Your task to perform on an android device: Open the Google play store app Image 0: 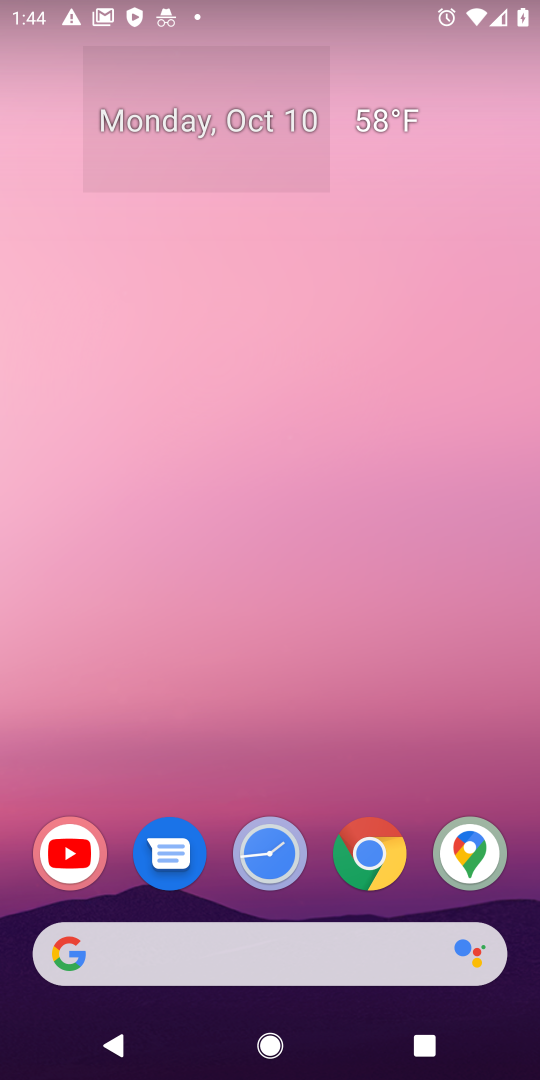
Step 0: drag from (207, 957) to (54, 423)
Your task to perform on an android device: Open the Google play store app Image 1: 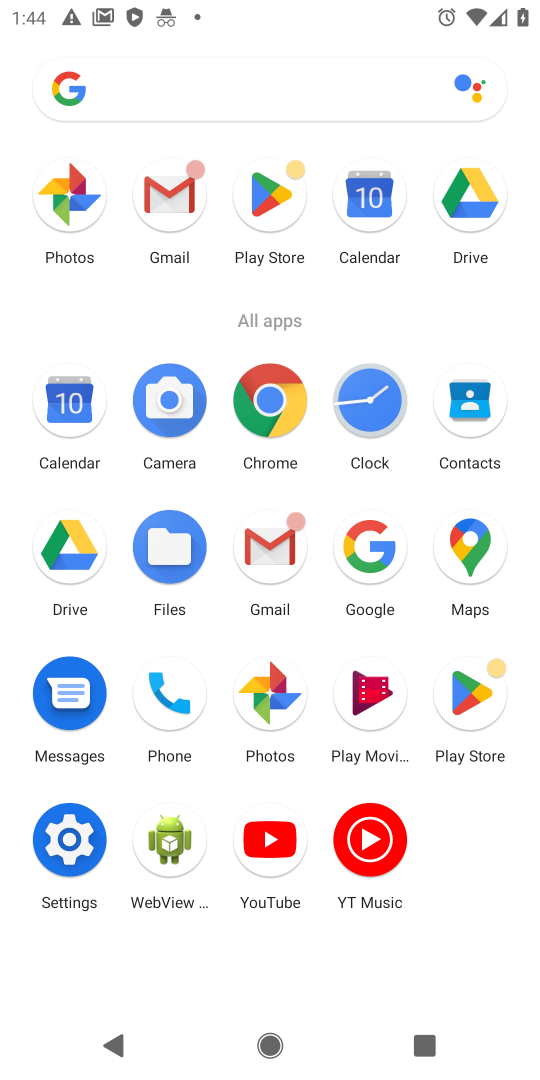
Step 1: click (453, 690)
Your task to perform on an android device: Open the Google play store app Image 2: 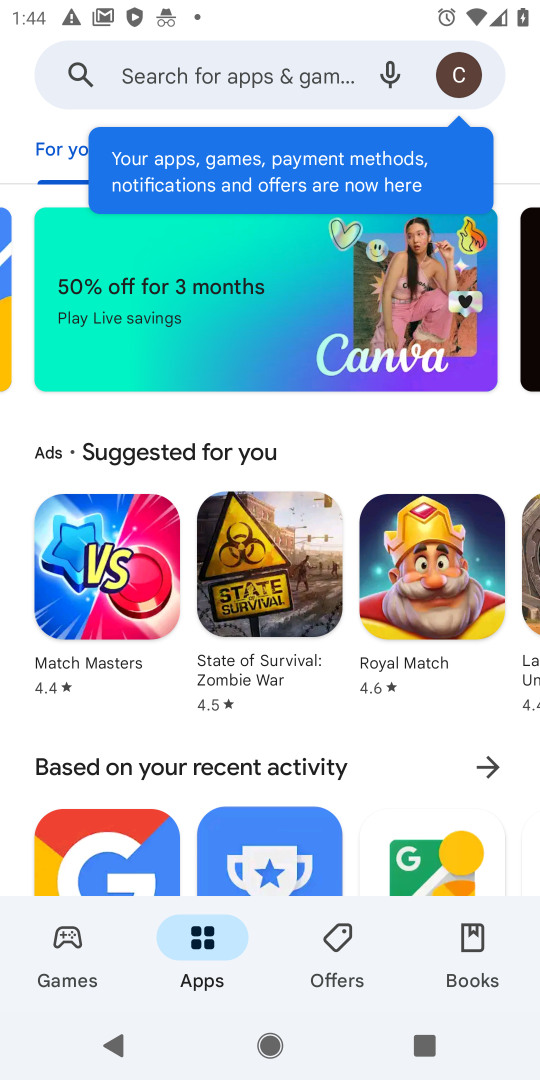
Step 2: task complete